Your task to perform on an android device: Open calendar and show me the fourth week of next month Image 0: 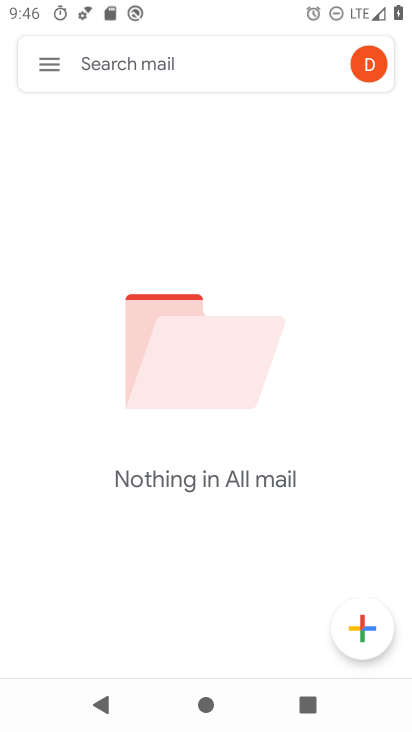
Step 0: press home button
Your task to perform on an android device: Open calendar and show me the fourth week of next month Image 1: 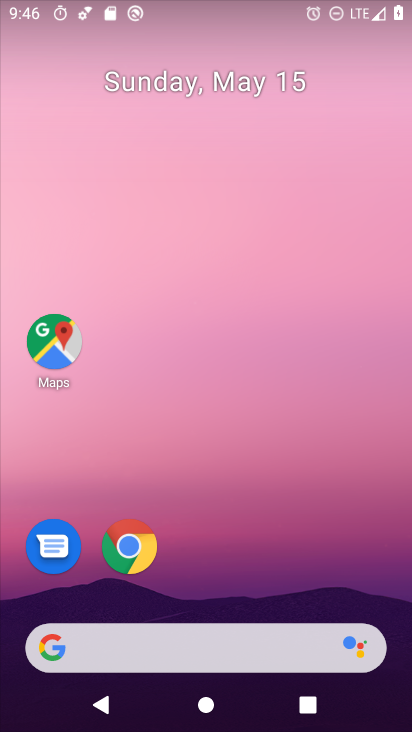
Step 1: drag from (244, 507) to (186, 0)
Your task to perform on an android device: Open calendar and show me the fourth week of next month Image 2: 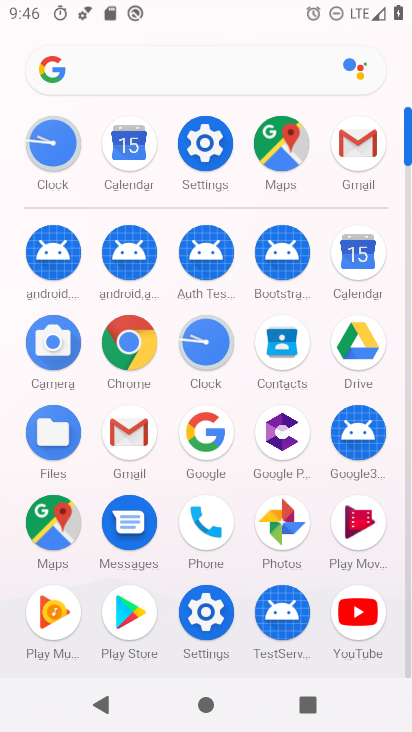
Step 2: click (135, 146)
Your task to perform on an android device: Open calendar and show me the fourth week of next month Image 3: 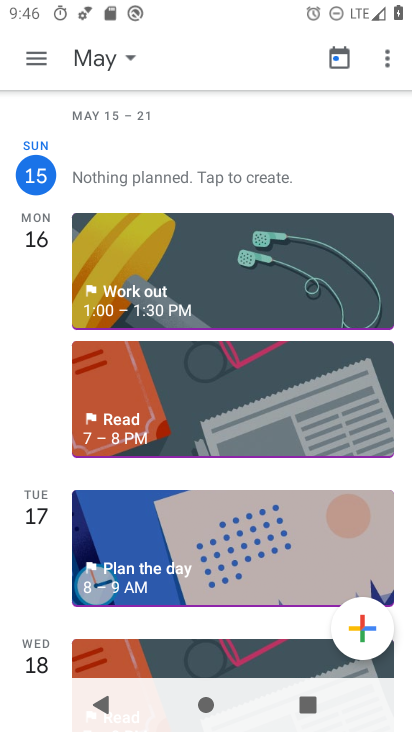
Step 3: click (30, 52)
Your task to perform on an android device: Open calendar and show me the fourth week of next month Image 4: 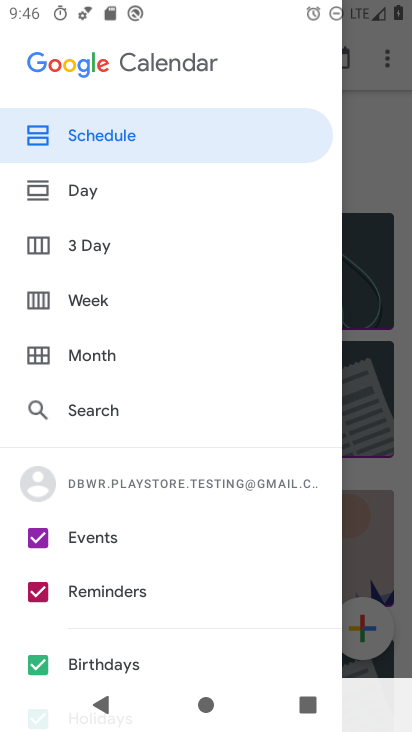
Step 4: click (109, 357)
Your task to perform on an android device: Open calendar and show me the fourth week of next month Image 5: 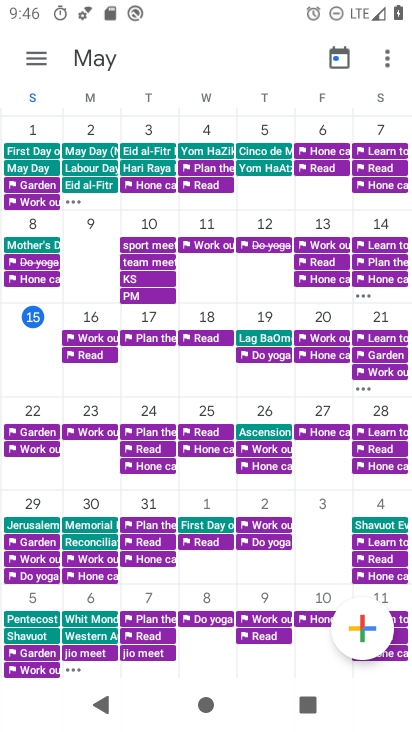
Step 5: drag from (357, 401) to (0, 355)
Your task to perform on an android device: Open calendar and show me the fourth week of next month Image 6: 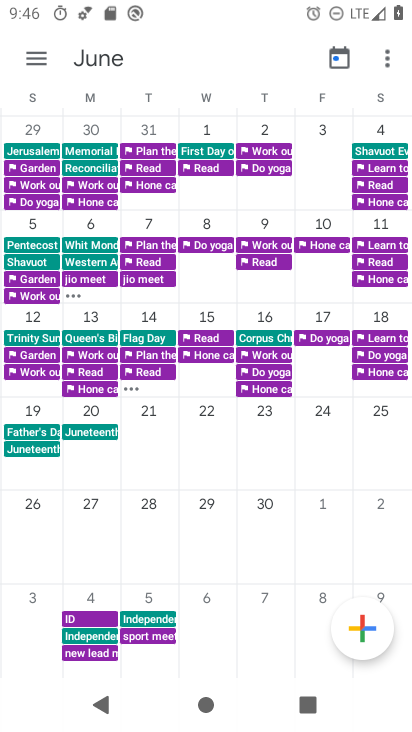
Step 6: click (39, 516)
Your task to perform on an android device: Open calendar and show me the fourth week of next month Image 7: 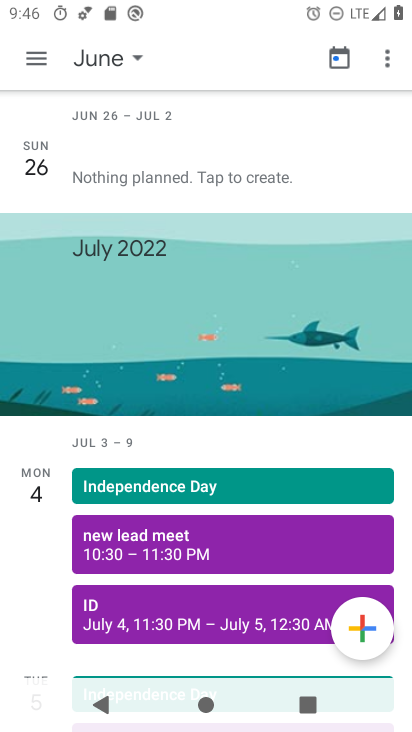
Step 7: click (31, 56)
Your task to perform on an android device: Open calendar and show me the fourth week of next month Image 8: 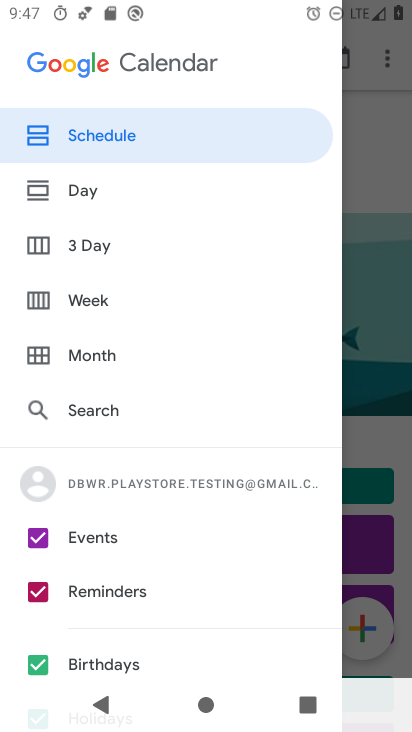
Step 8: click (79, 297)
Your task to perform on an android device: Open calendar and show me the fourth week of next month Image 9: 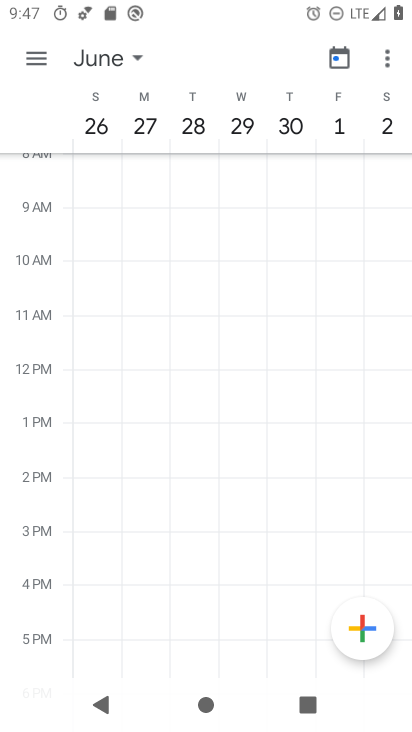
Step 9: task complete